Your task to perform on an android device: turn off picture-in-picture Image 0: 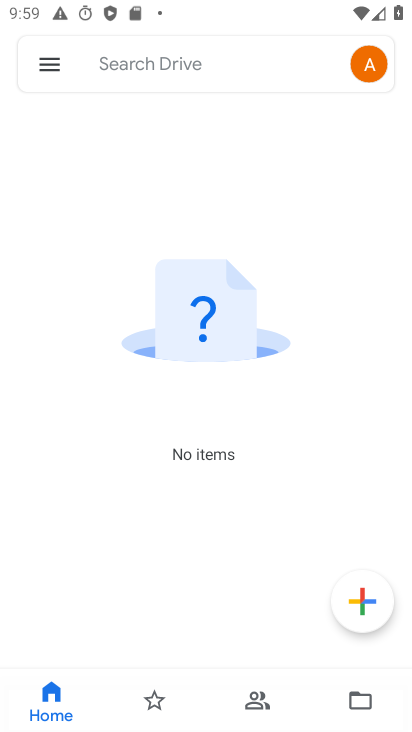
Step 0: press home button
Your task to perform on an android device: turn off picture-in-picture Image 1: 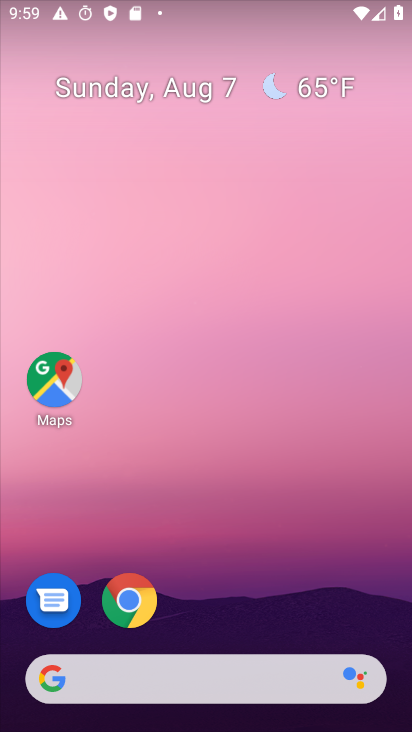
Step 1: drag from (301, 663) to (382, 58)
Your task to perform on an android device: turn off picture-in-picture Image 2: 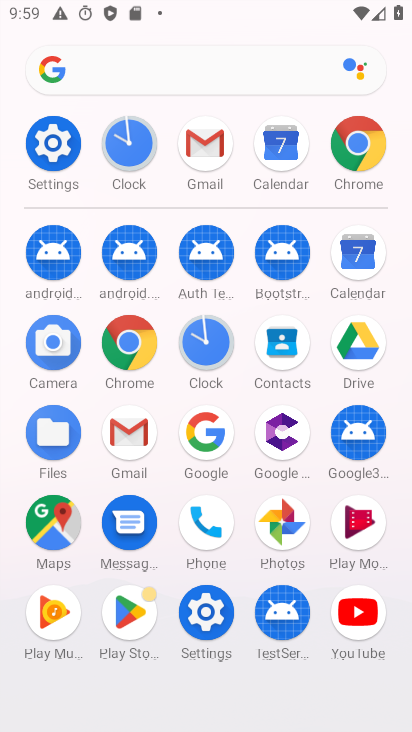
Step 2: click (50, 155)
Your task to perform on an android device: turn off picture-in-picture Image 3: 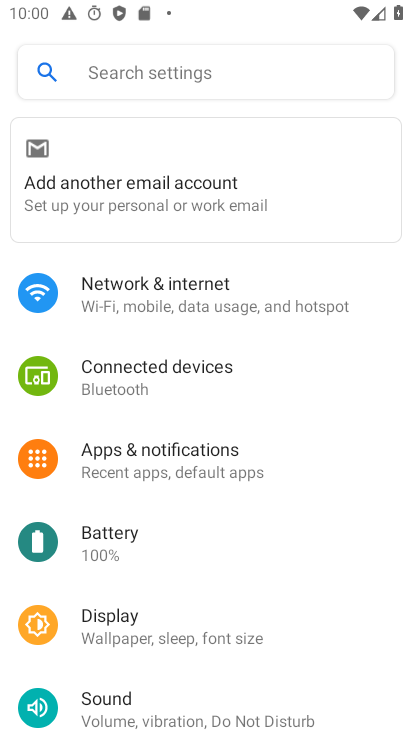
Step 3: click (165, 467)
Your task to perform on an android device: turn off picture-in-picture Image 4: 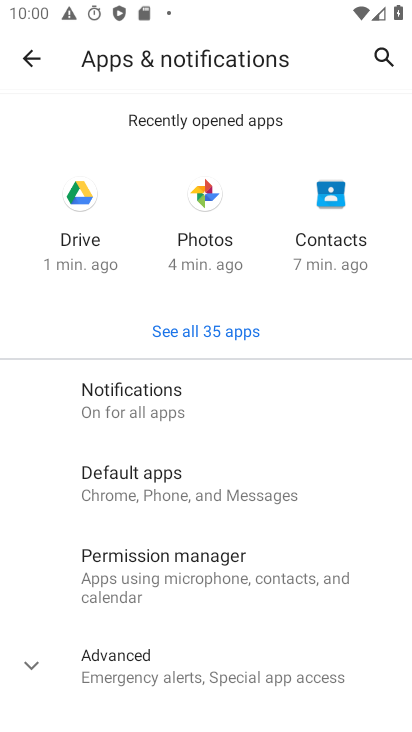
Step 4: click (182, 672)
Your task to perform on an android device: turn off picture-in-picture Image 5: 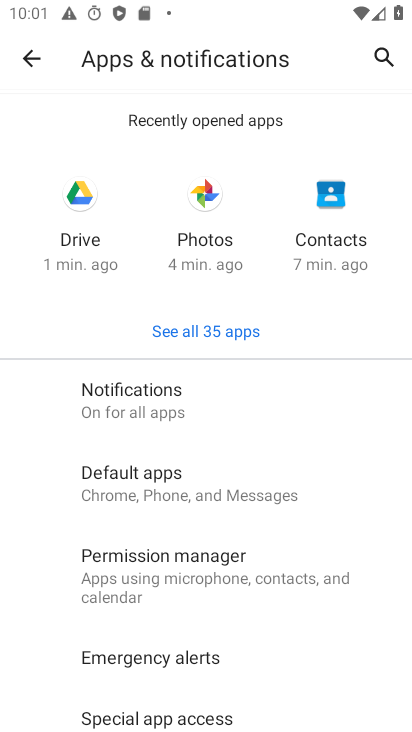
Step 5: click (302, 63)
Your task to perform on an android device: turn off picture-in-picture Image 6: 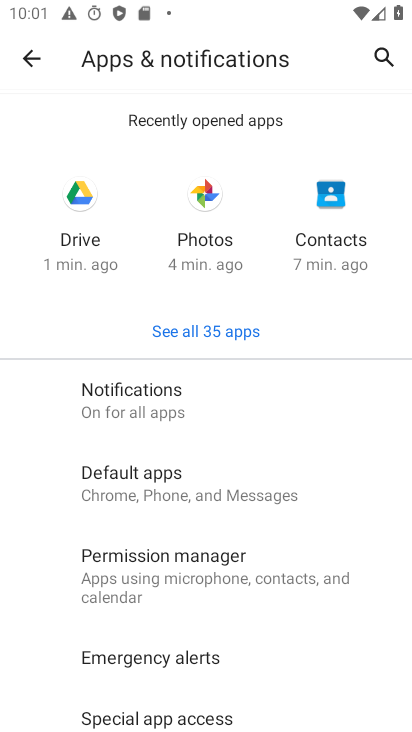
Step 6: drag from (216, 542) to (236, 43)
Your task to perform on an android device: turn off picture-in-picture Image 7: 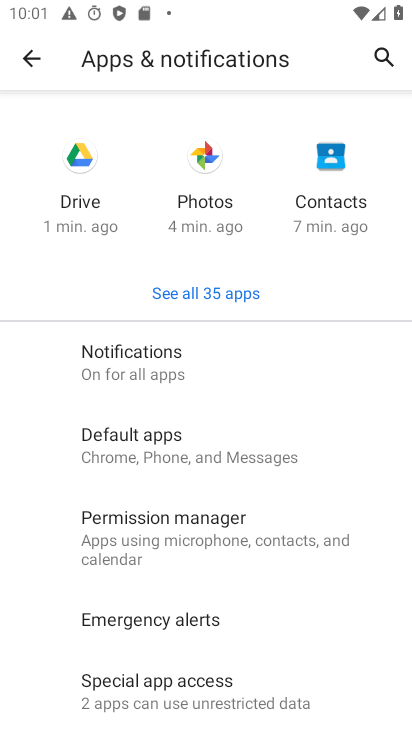
Step 7: click (214, 715)
Your task to perform on an android device: turn off picture-in-picture Image 8: 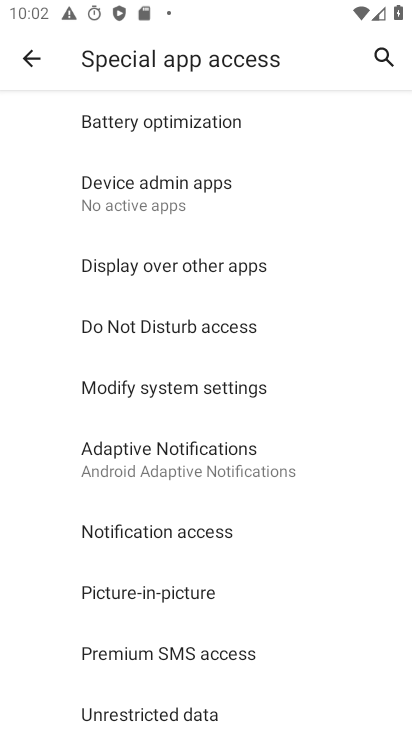
Step 8: click (210, 593)
Your task to perform on an android device: turn off picture-in-picture Image 9: 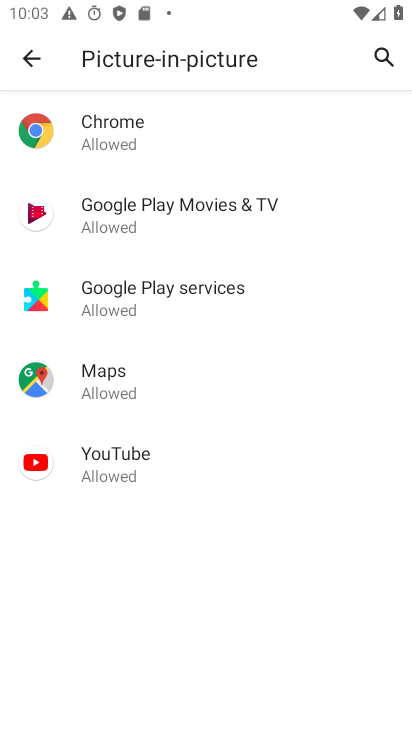
Step 9: click (116, 136)
Your task to perform on an android device: turn off picture-in-picture Image 10: 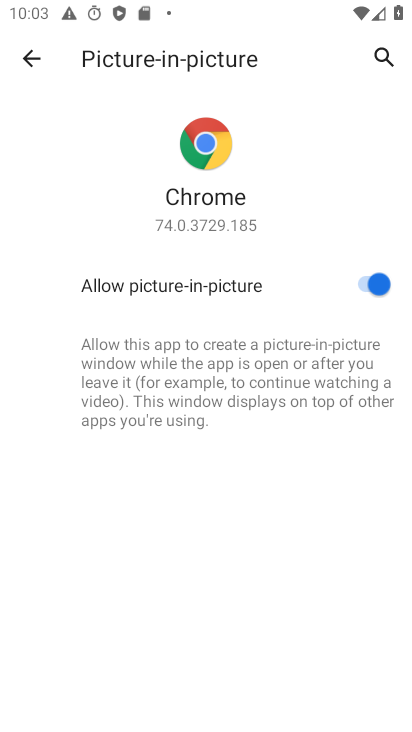
Step 10: click (353, 274)
Your task to perform on an android device: turn off picture-in-picture Image 11: 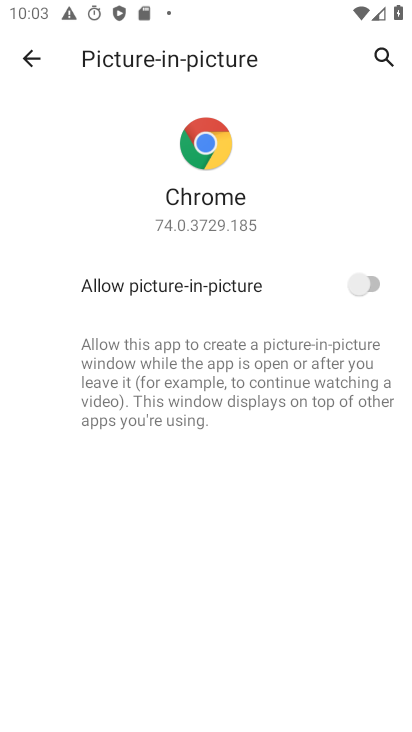
Step 11: task complete